Your task to perform on an android device: manage bookmarks in the chrome app Image 0: 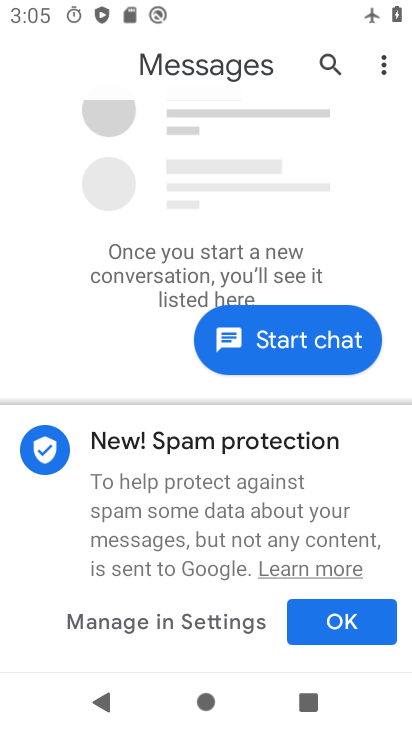
Step 0: press home button
Your task to perform on an android device: manage bookmarks in the chrome app Image 1: 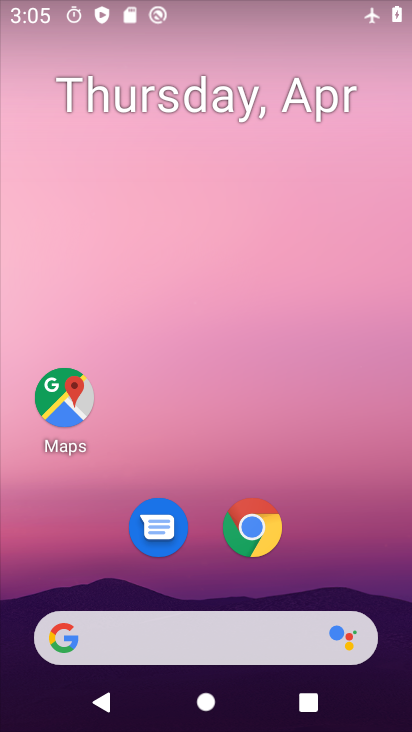
Step 1: click (250, 532)
Your task to perform on an android device: manage bookmarks in the chrome app Image 2: 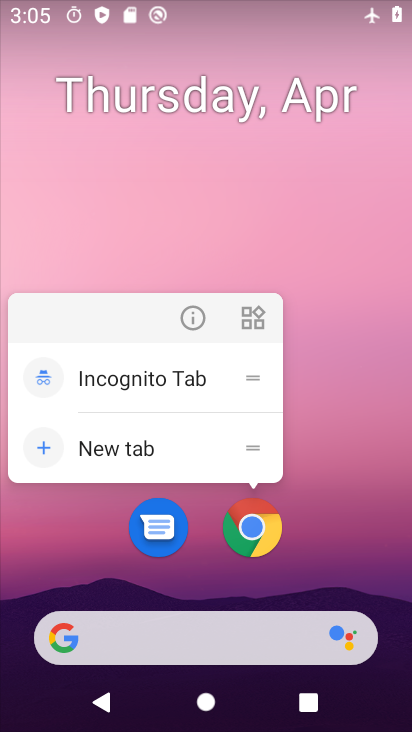
Step 2: click (266, 524)
Your task to perform on an android device: manage bookmarks in the chrome app Image 3: 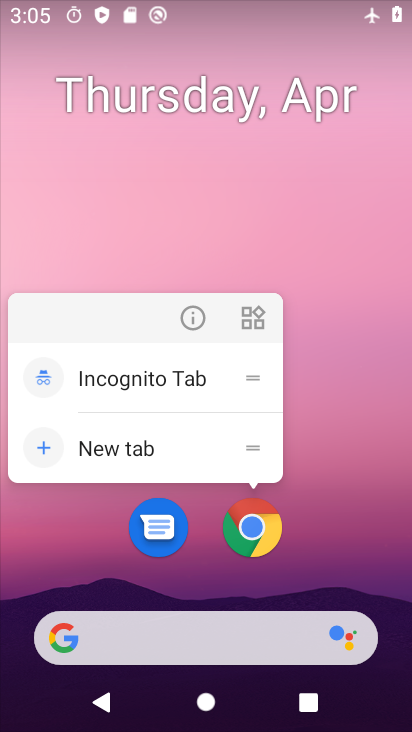
Step 3: click (267, 537)
Your task to perform on an android device: manage bookmarks in the chrome app Image 4: 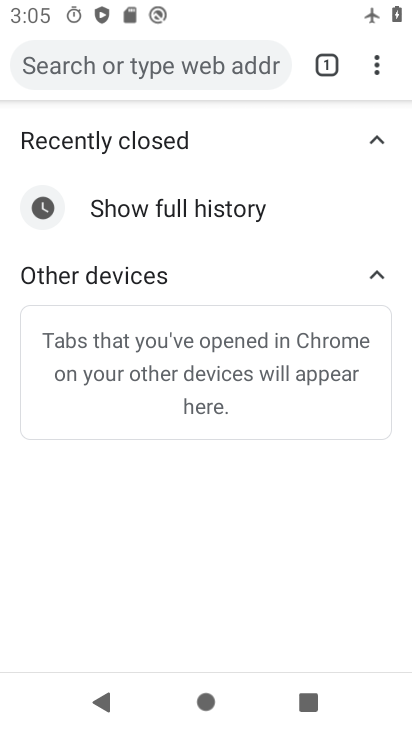
Step 4: task complete